Your task to perform on an android device: Clear all items from cart on walmart. Add logitech g502 to the cart on walmart Image 0: 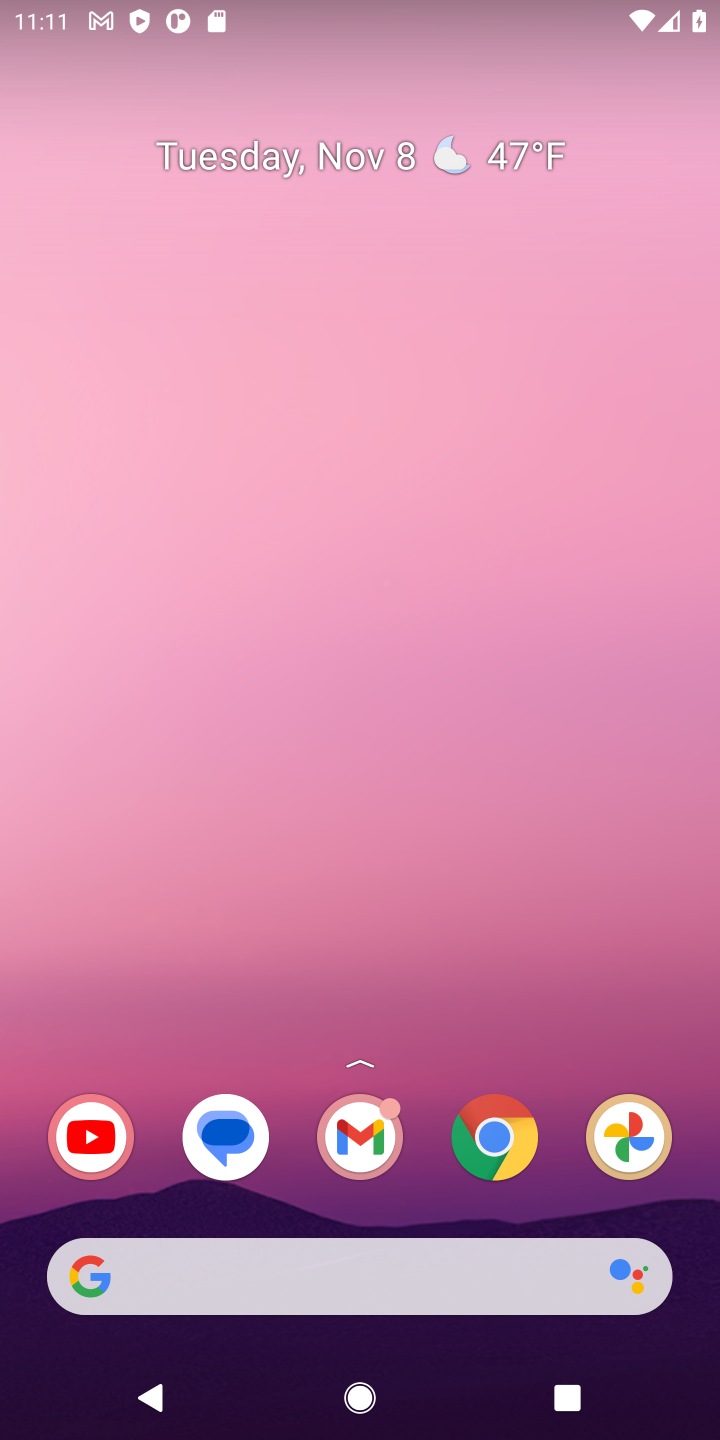
Step 0: click (494, 1140)
Your task to perform on an android device: Clear all items from cart on walmart. Add logitech g502 to the cart on walmart Image 1: 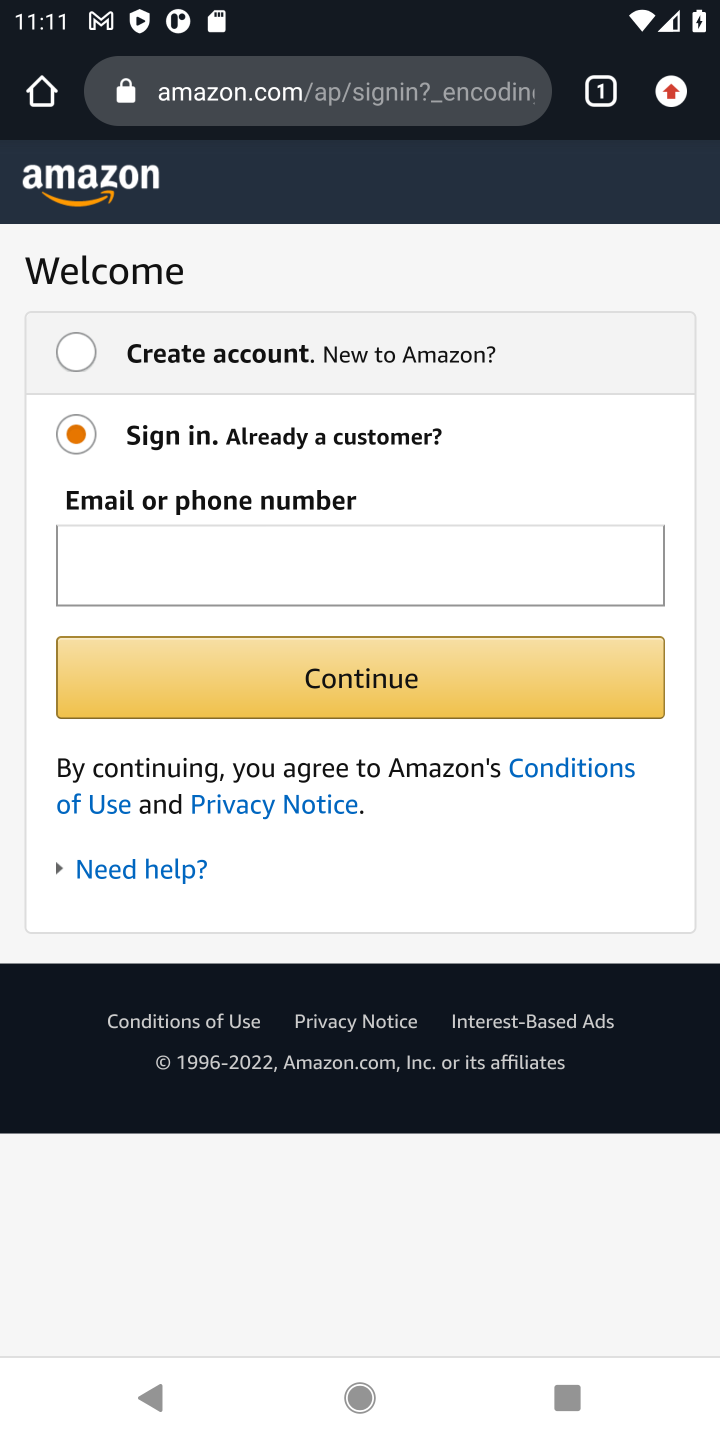
Step 1: click (441, 103)
Your task to perform on an android device: Clear all items from cart on walmart. Add logitech g502 to the cart on walmart Image 2: 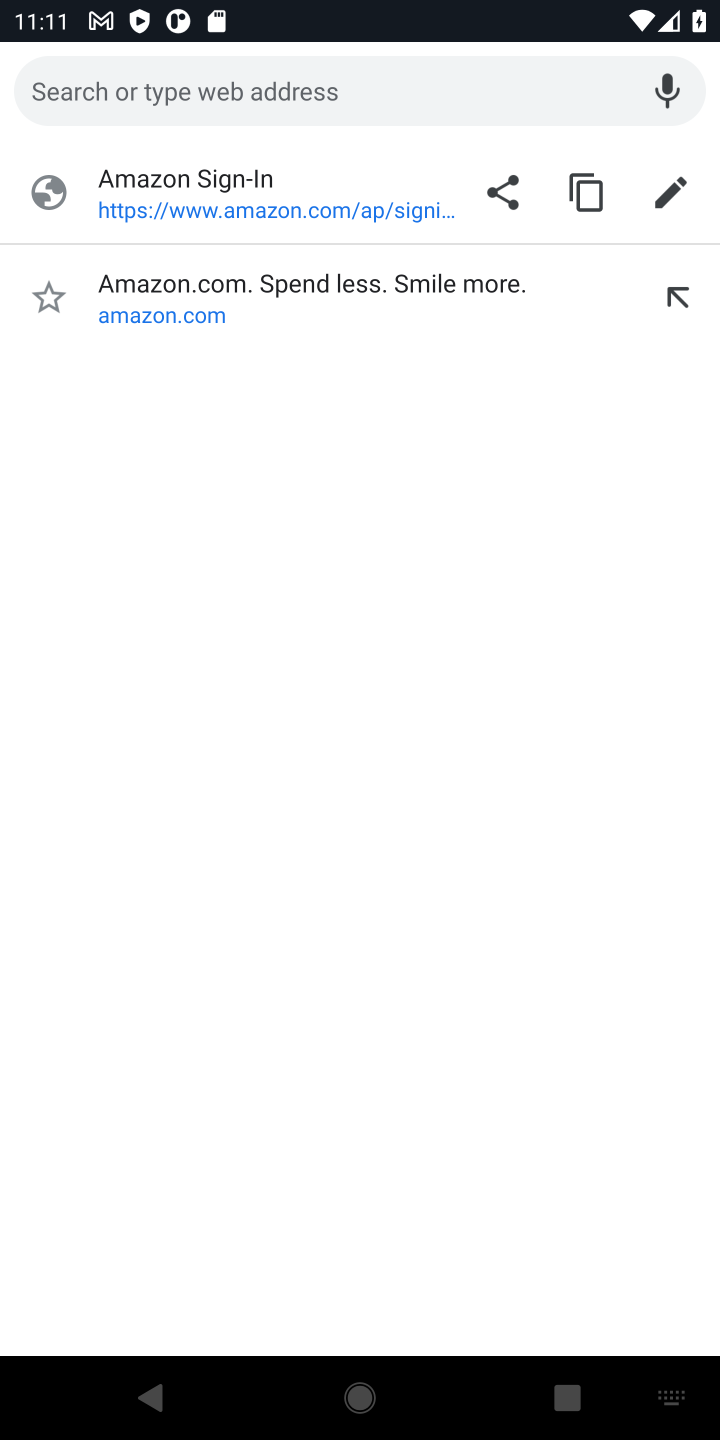
Step 2: type "walmart"
Your task to perform on an android device: Clear all items from cart on walmart. Add logitech g502 to the cart on walmart Image 3: 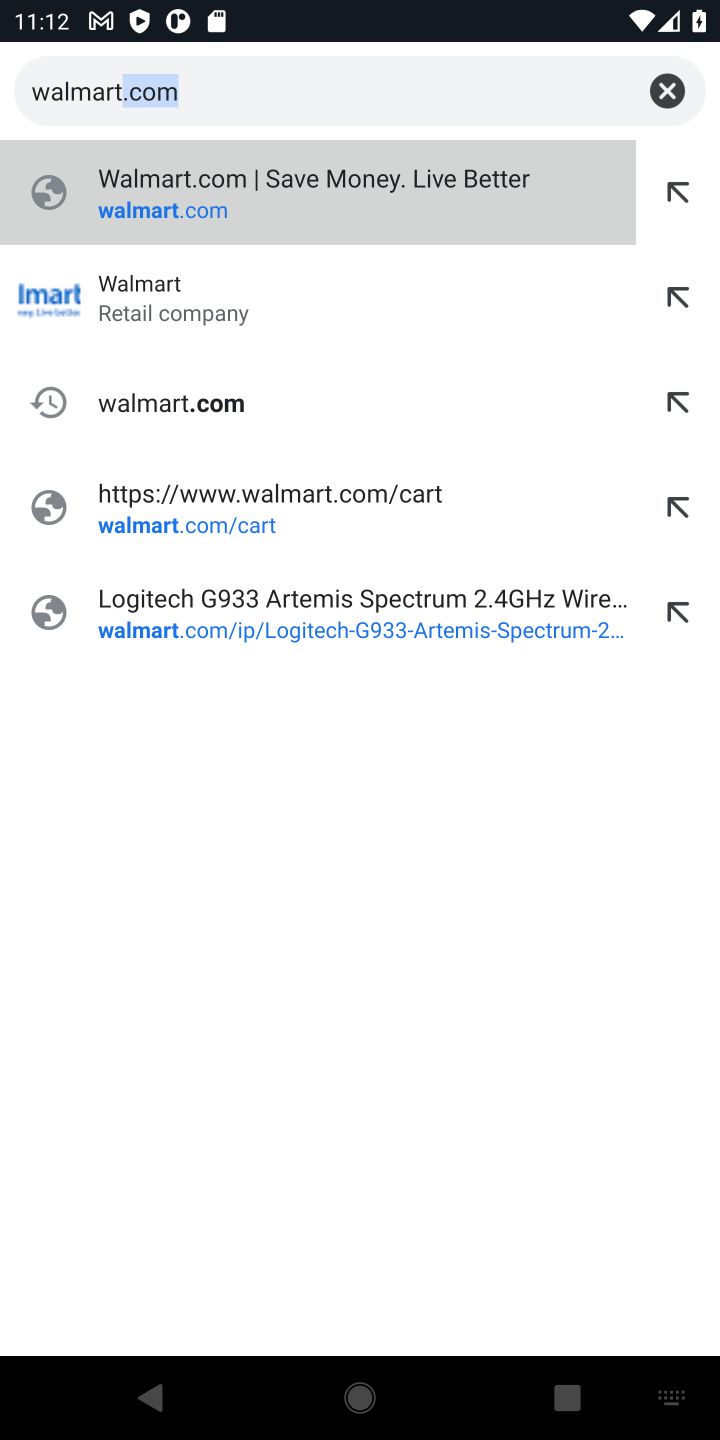
Step 3: click (219, 330)
Your task to perform on an android device: Clear all items from cart on walmart. Add logitech g502 to the cart on walmart Image 4: 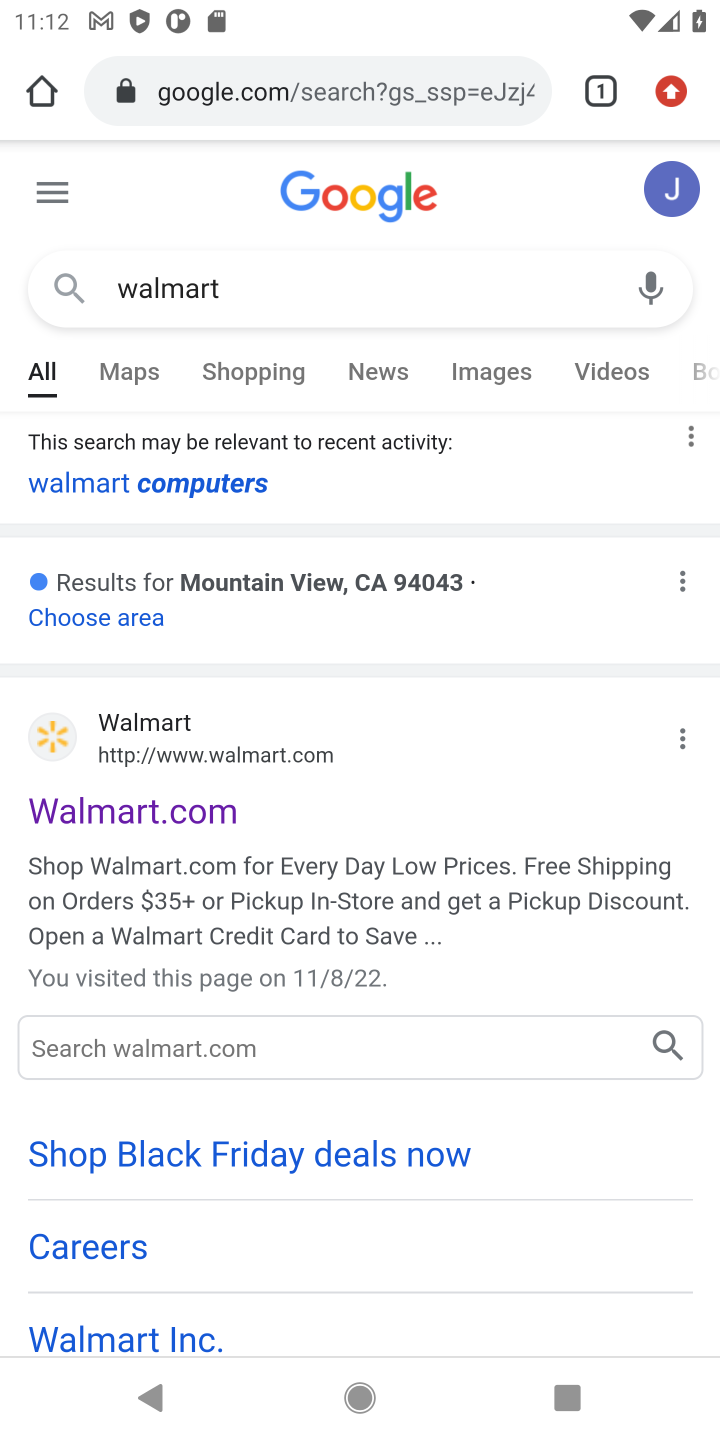
Step 4: click (165, 759)
Your task to perform on an android device: Clear all items from cart on walmart. Add logitech g502 to the cart on walmart Image 5: 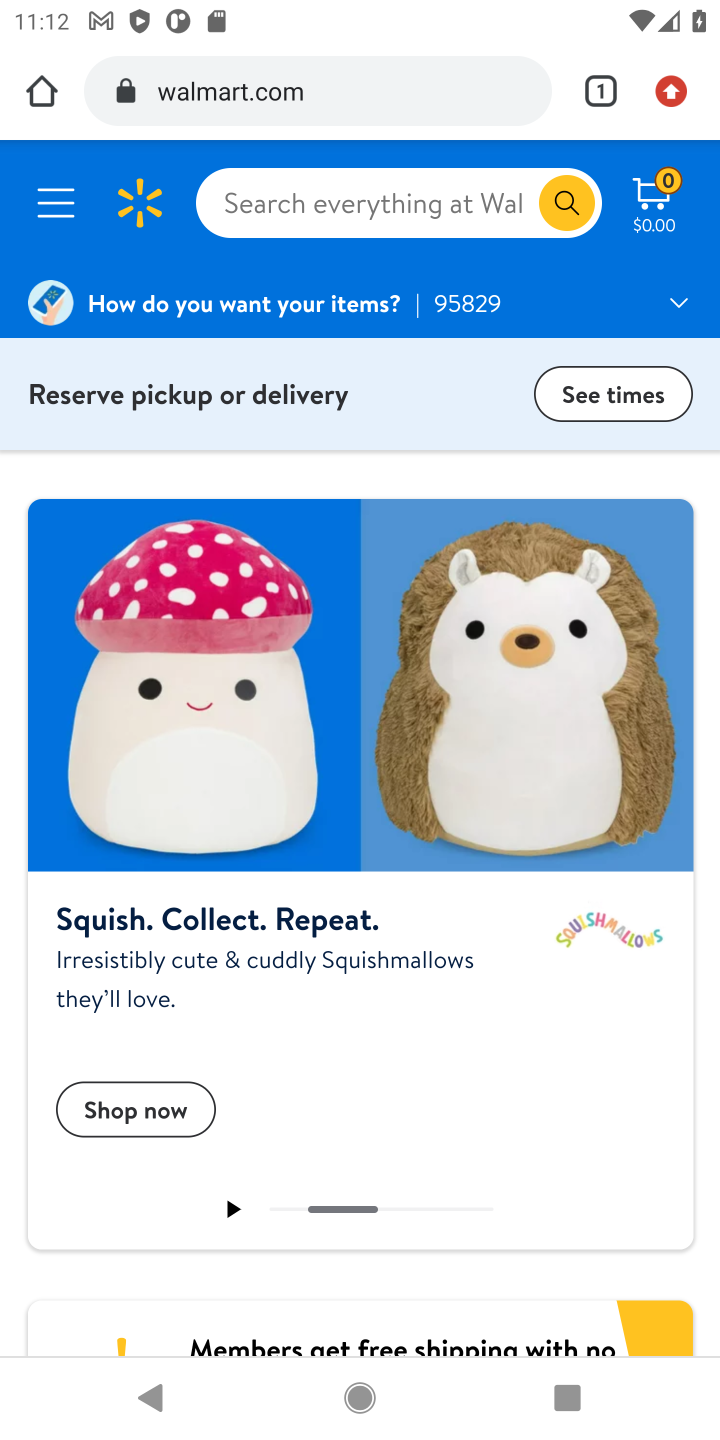
Step 5: click (657, 196)
Your task to perform on an android device: Clear all items from cart on walmart. Add logitech g502 to the cart on walmart Image 6: 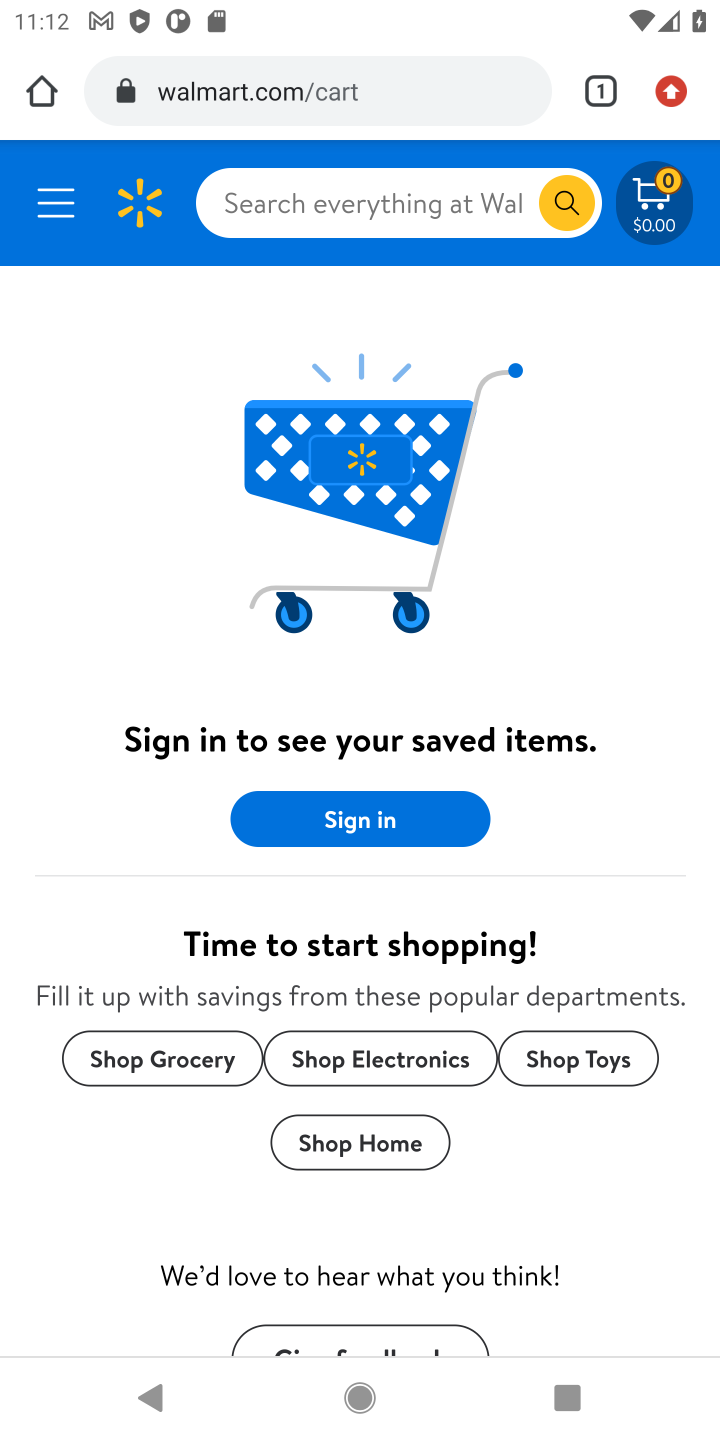
Step 6: click (347, 201)
Your task to perform on an android device: Clear all items from cart on walmart. Add logitech g502 to the cart on walmart Image 7: 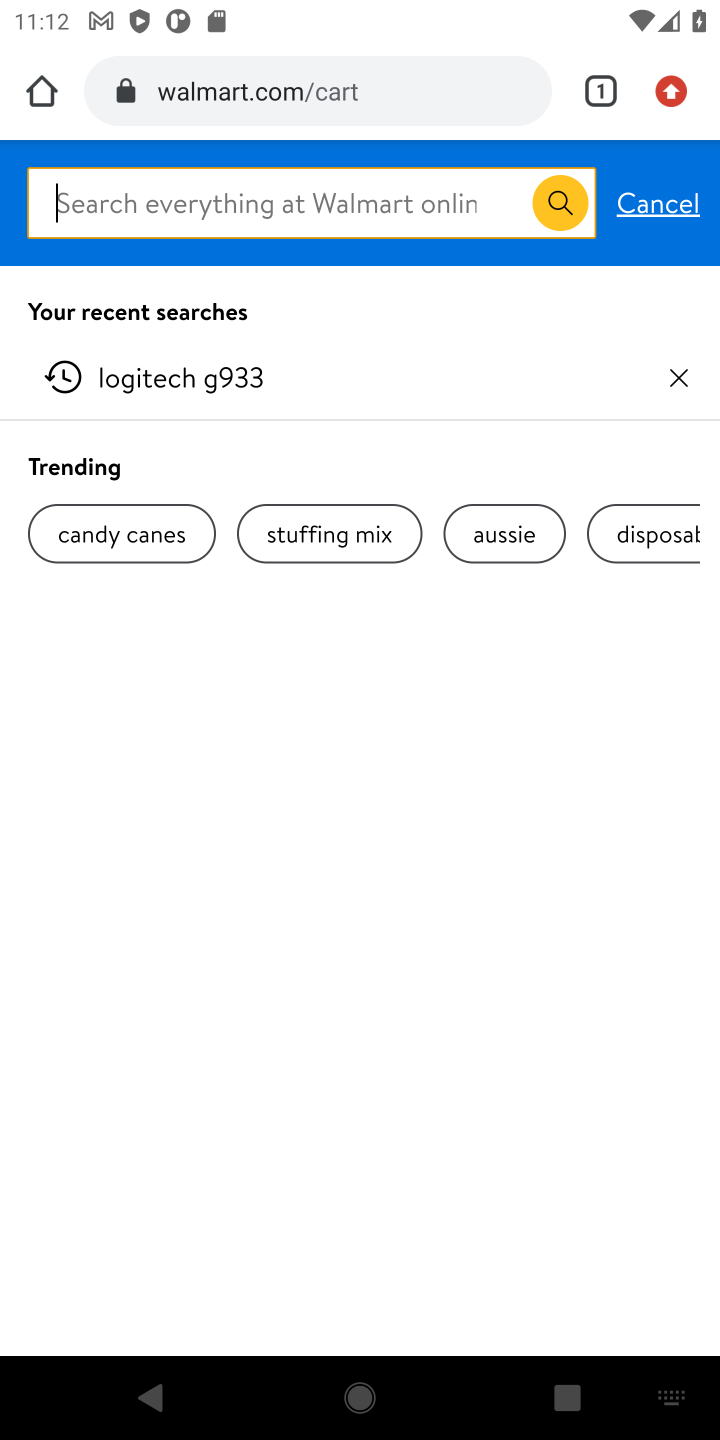
Step 7: type "logitech g502"
Your task to perform on an android device: Clear all items from cart on walmart. Add logitech g502 to the cart on walmart Image 8: 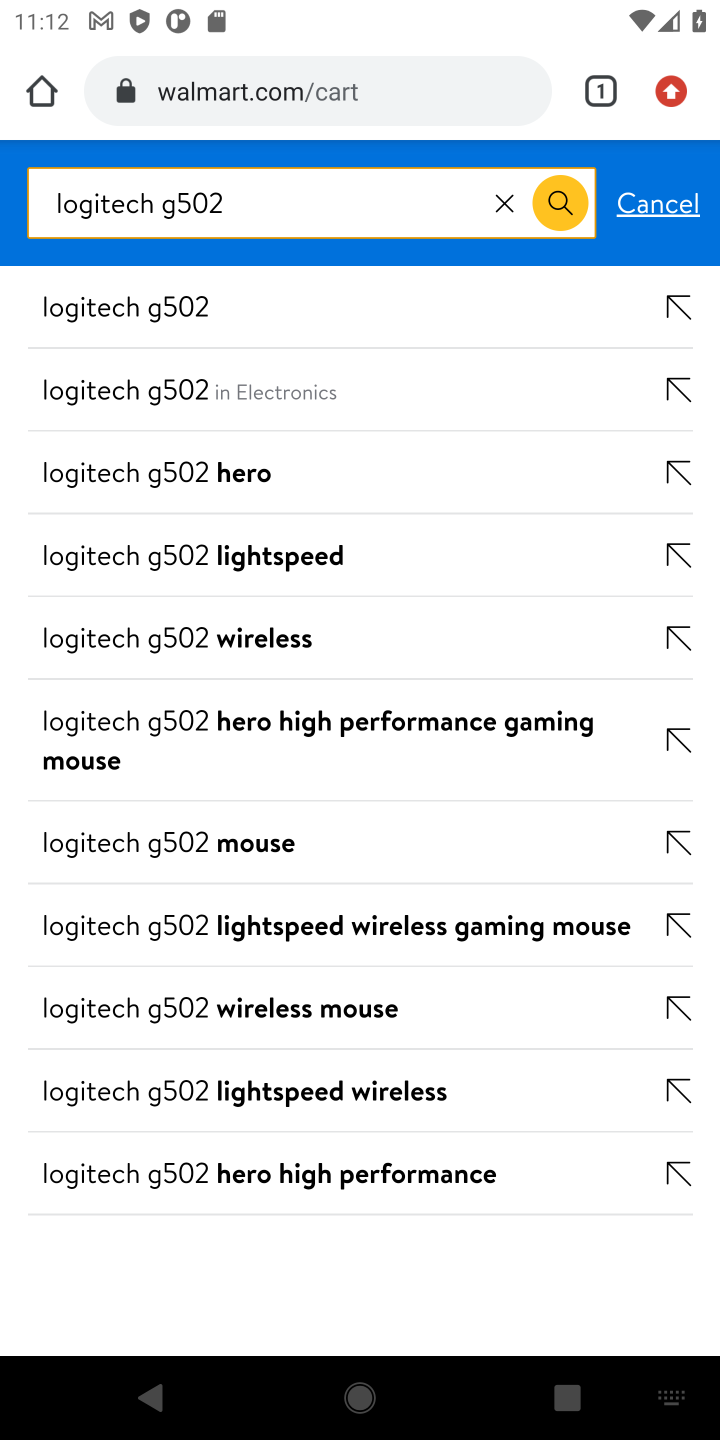
Step 8: click (136, 323)
Your task to perform on an android device: Clear all items from cart on walmart. Add logitech g502 to the cart on walmart Image 9: 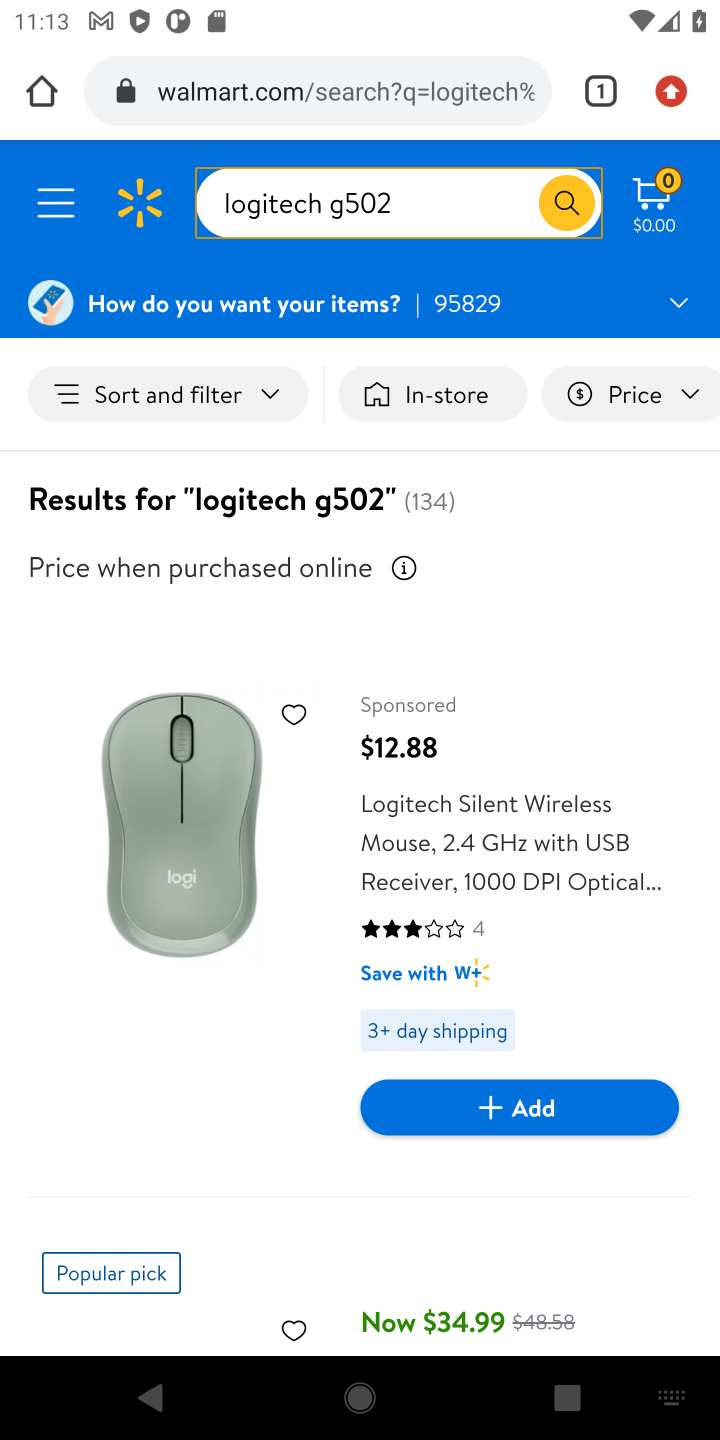
Step 9: drag from (566, 995) to (593, 562)
Your task to perform on an android device: Clear all items from cart on walmart. Add logitech g502 to the cart on walmart Image 10: 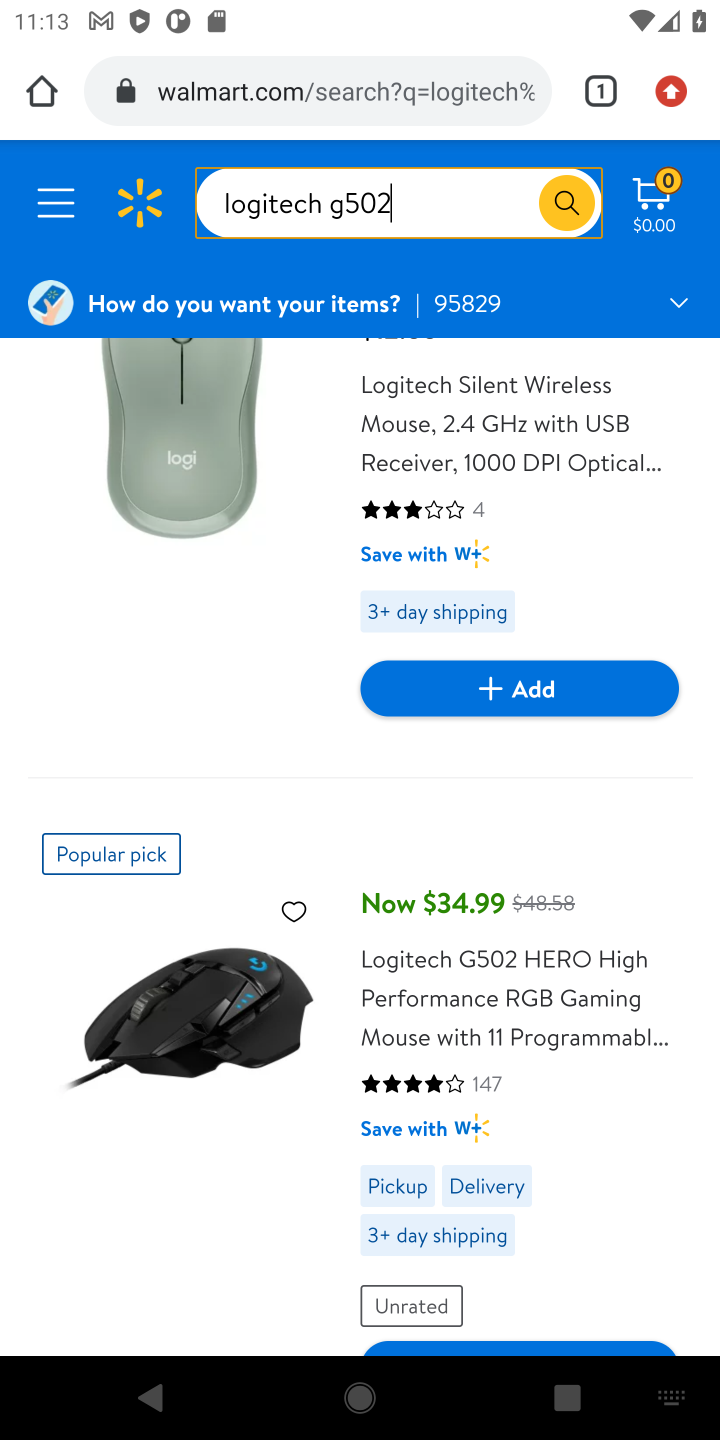
Step 10: click (557, 964)
Your task to perform on an android device: Clear all items from cart on walmart. Add logitech g502 to the cart on walmart Image 11: 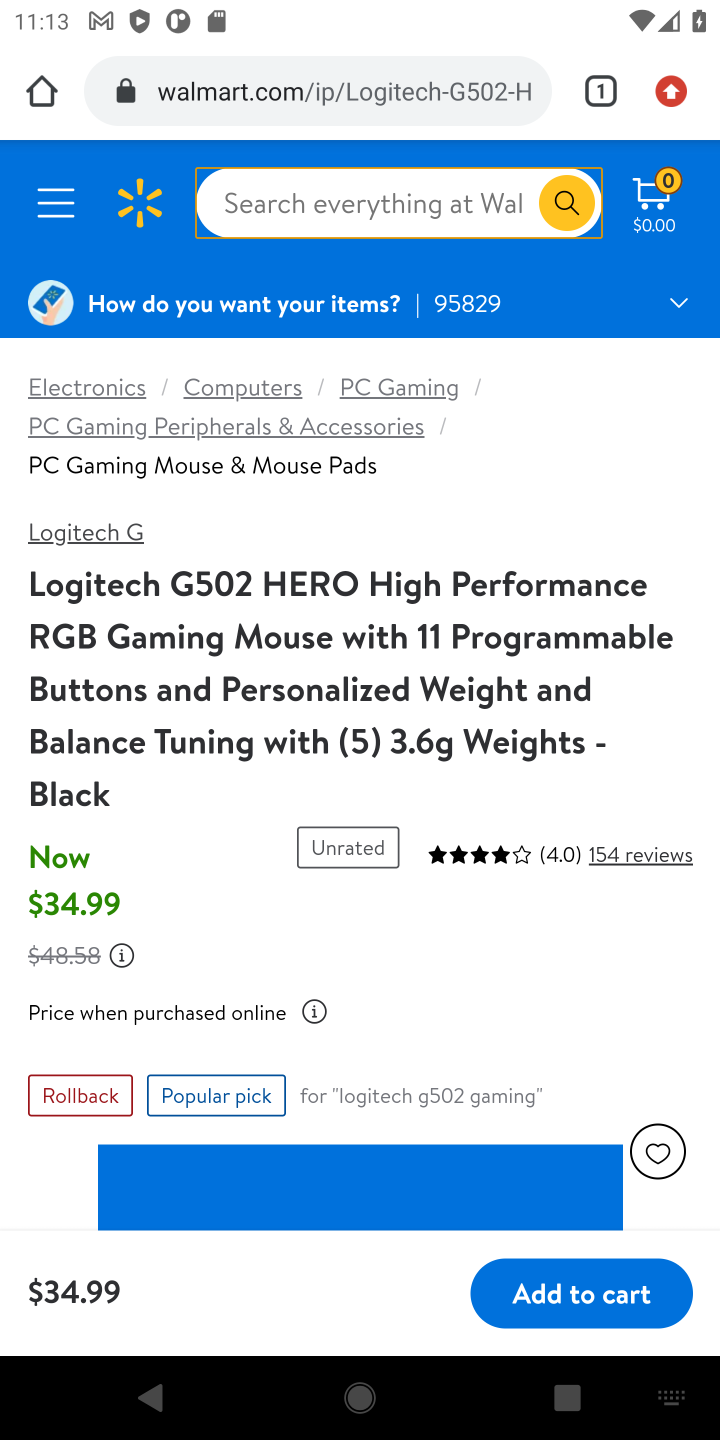
Step 11: click (594, 1308)
Your task to perform on an android device: Clear all items from cart on walmart. Add logitech g502 to the cart on walmart Image 12: 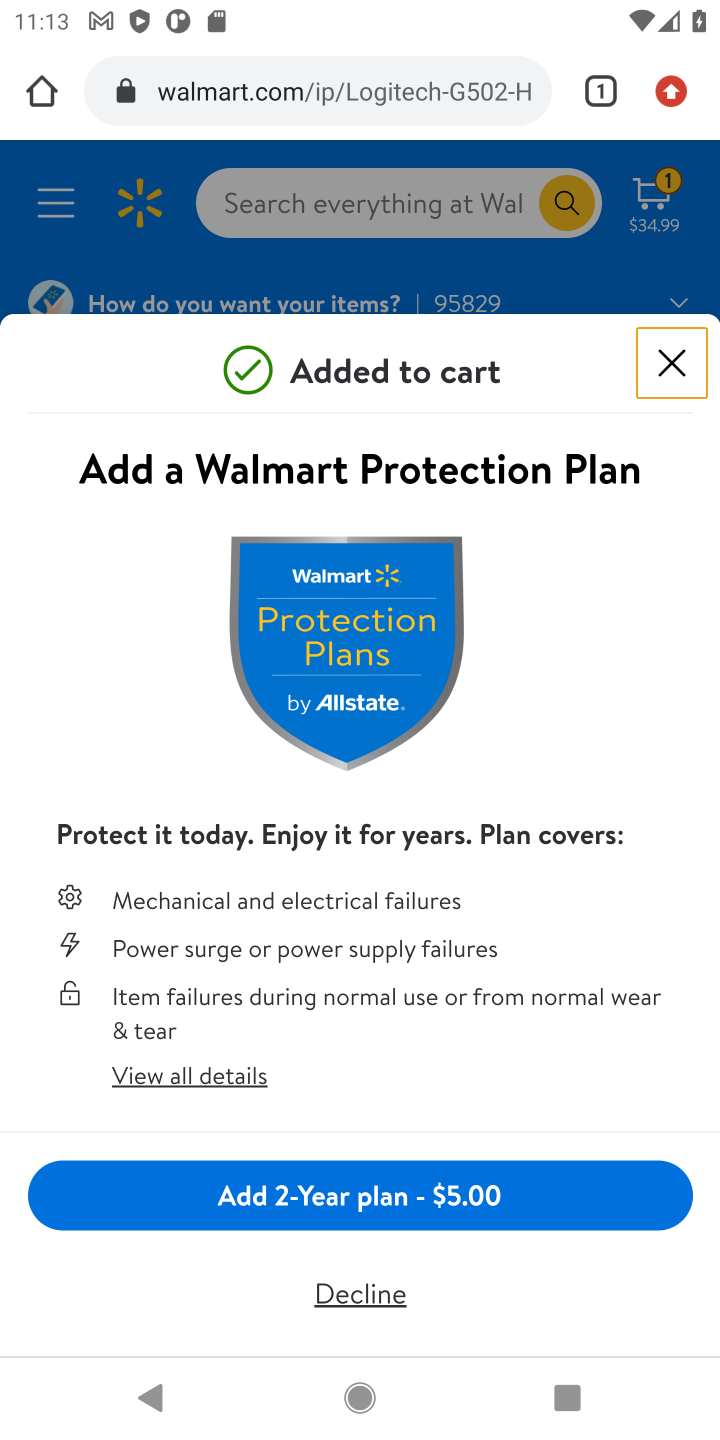
Step 12: click (354, 1288)
Your task to perform on an android device: Clear all items from cart on walmart. Add logitech g502 to the cart on walmart Image 13: 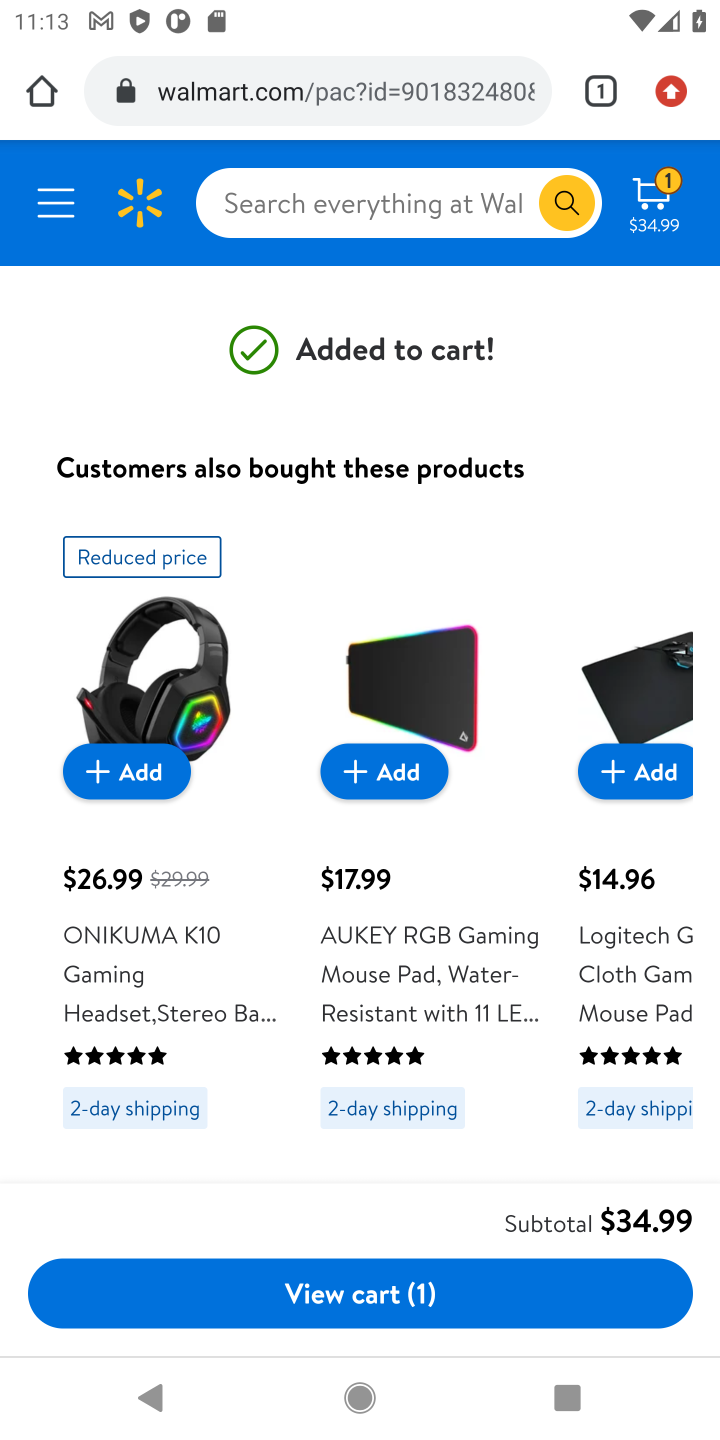
Step 13: task complete